Your task to perform on an android device: turn off location history Image 0: 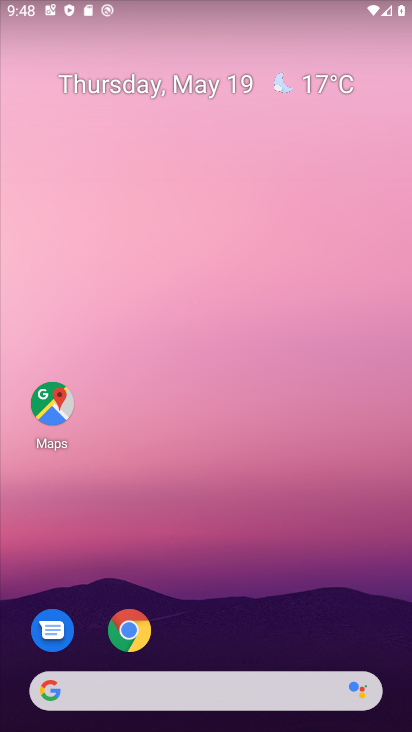
Step 0: drag from (289, 559) to (207, 47)
Your task to perform on an android device: turn off location history Image 1: 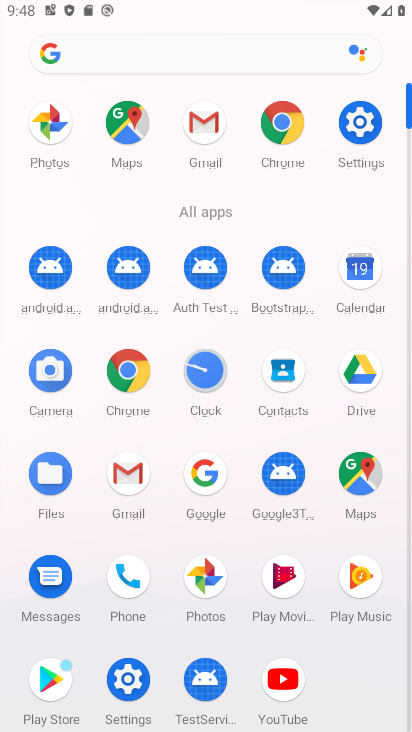
Step 1: click (127, 119)
Your task to perform on an android device: turn off location history Image 2: 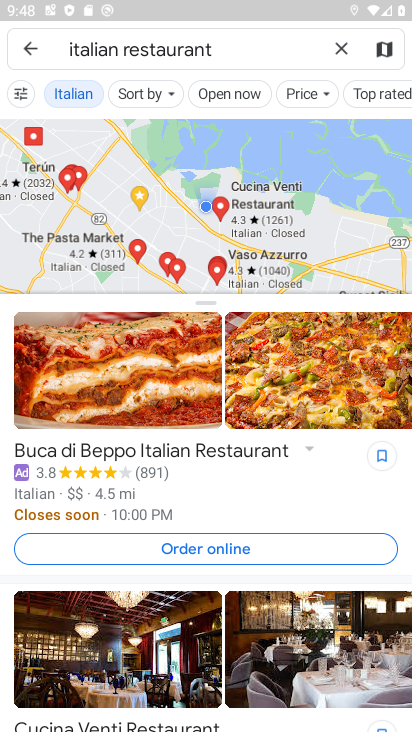
Step 2: click (24, 46)
Your task to perform on an android device: turn off location history Image 3: 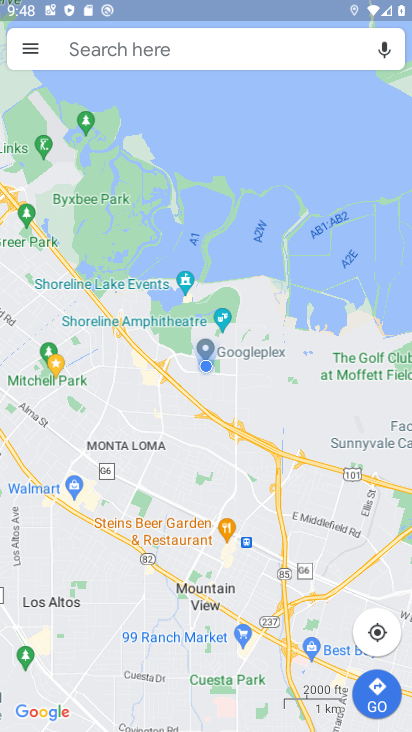
Step 3: click (28, 60)
Your task to perform on an android device: turn off location history Image 4: 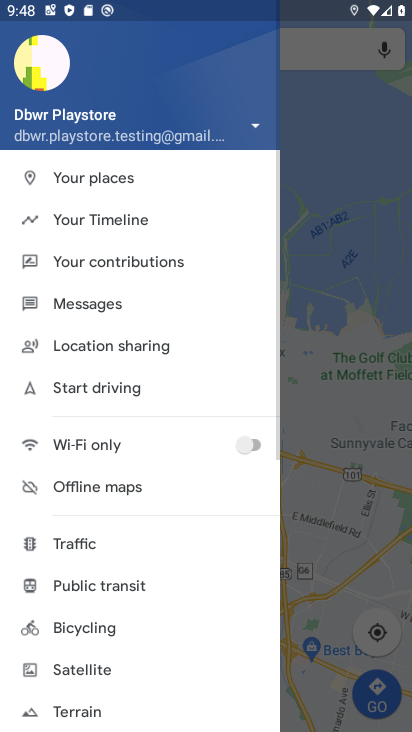
Step 4: click (113, 218)
Your task to perform on an android device: turn off location history Image 5: 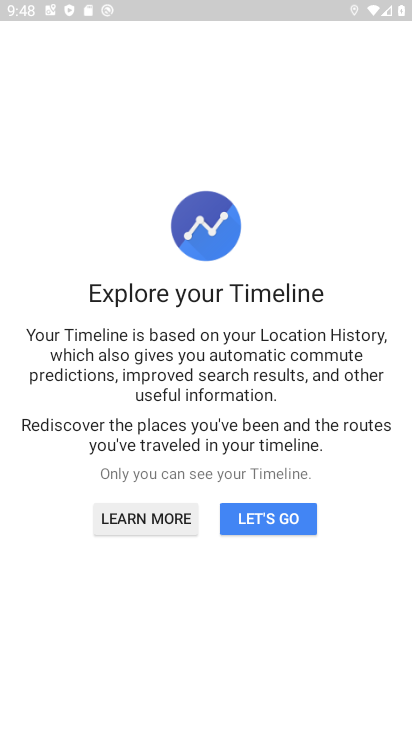
Step 5: click (264, 518)
Your task to perform on an android device: turn off location history Image 6: 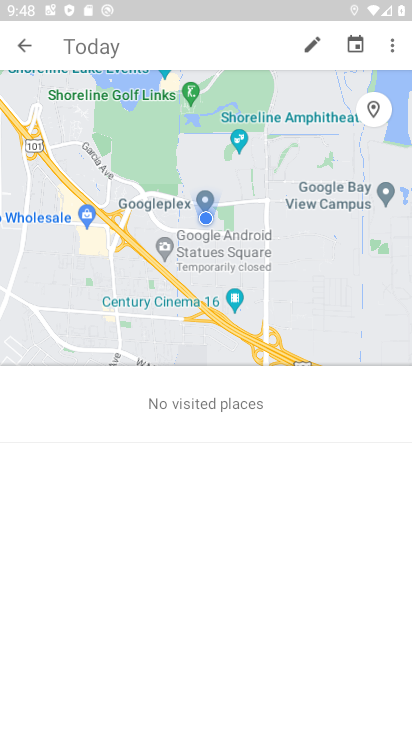
Step 6: click (396, 42)
Your task to perform on an android device: turn off location history Image 7: 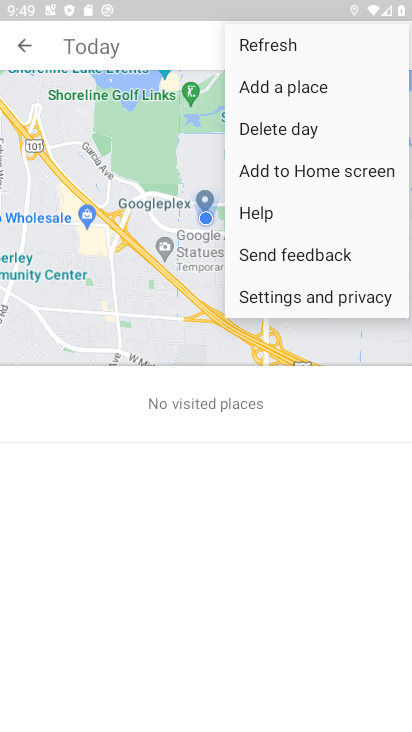
Step 7: click (282, 299)
Your task to perform on an android device: turn off location history Image 8: 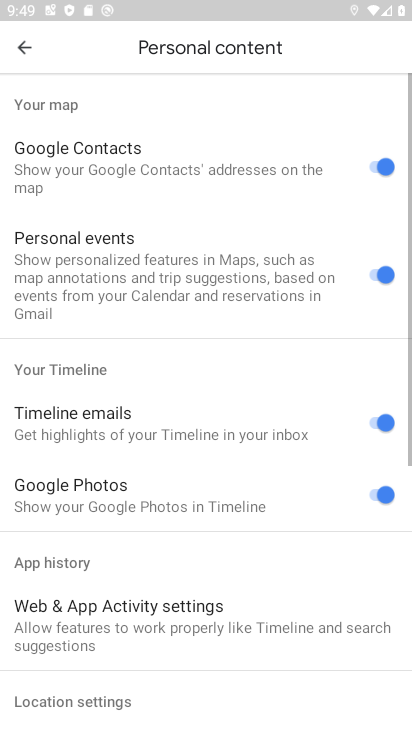
Step 8: drag from (277, 522) to (215, 275)
Your task to perform on an android device: turn off location history Image 9: 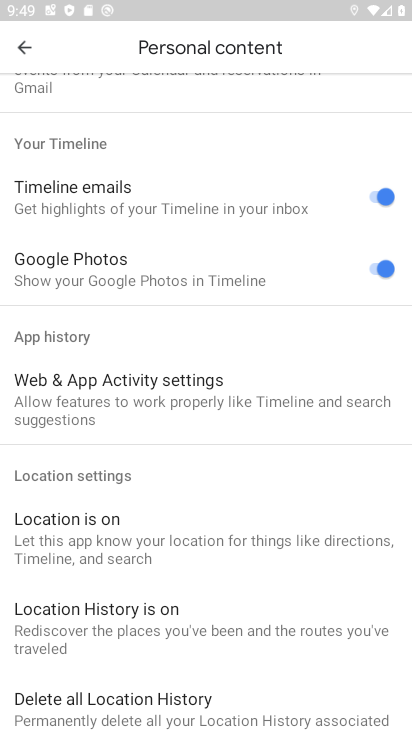
Step 9: drag from (214, 507) to (178, 307)
Your task to perform on an android device: turn off location history Image 10: 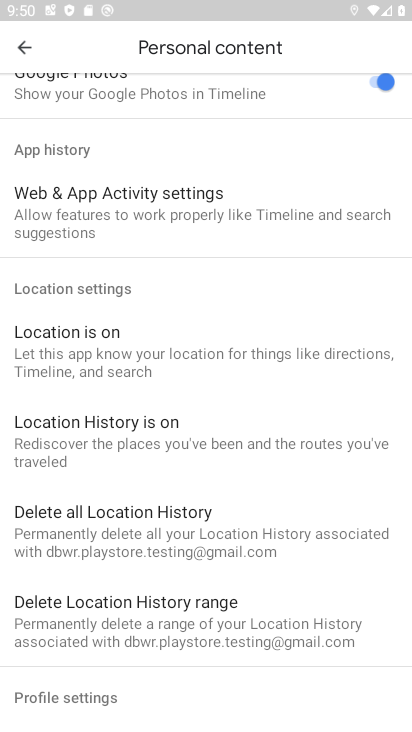
Step 10: click (137, 421)
Your task to perform on an android device: turn off location history Image 11: 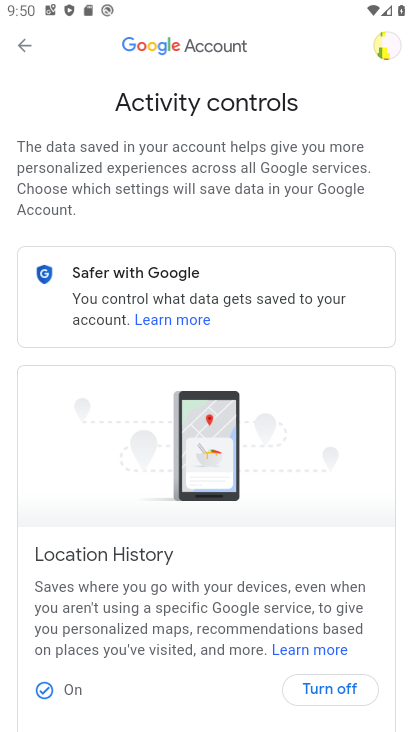
Step 11: click (324, 687)
Your task to perform on an android device: turn off location history Image 12: 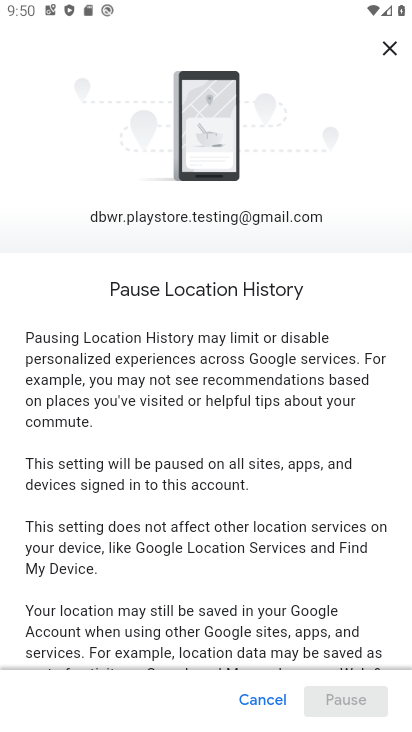
Step 12: drag from (280, 556) to (270, 216)
Your task to perform on an android device: turn off location history Image 13: 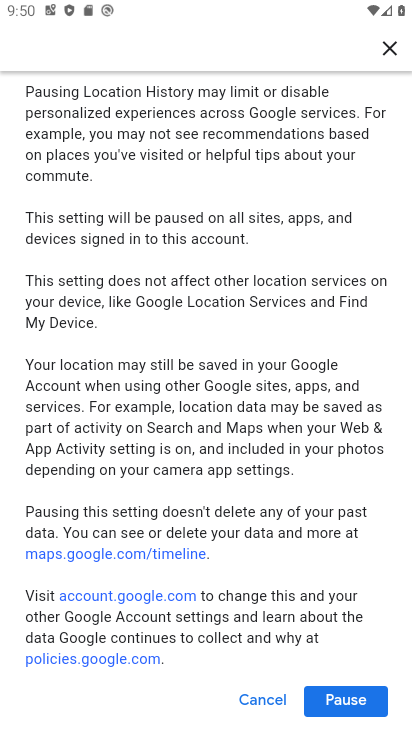
Step 13: click (336, 702)
Your task to perform on an android device: turn off location history Image 14: 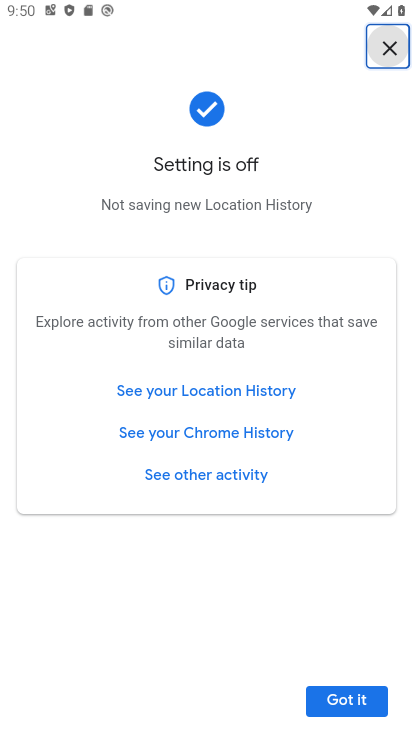
Step 14: click (339, 698)
Your task to perform on an android device: turn off location history Image 15: 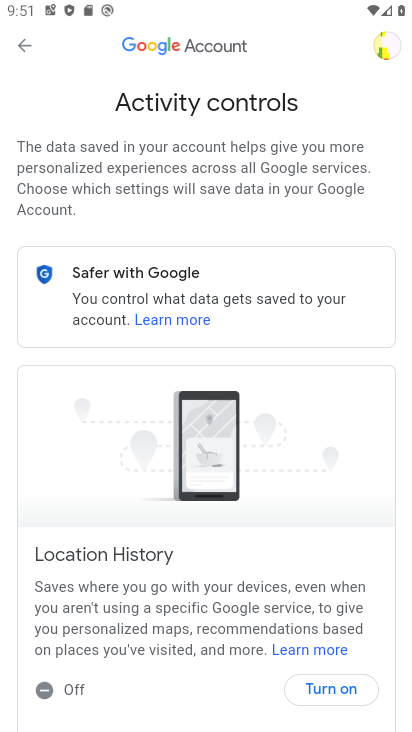
Step 15: task complete